Your task to perform on an android device: change keyboard looks Image 0: 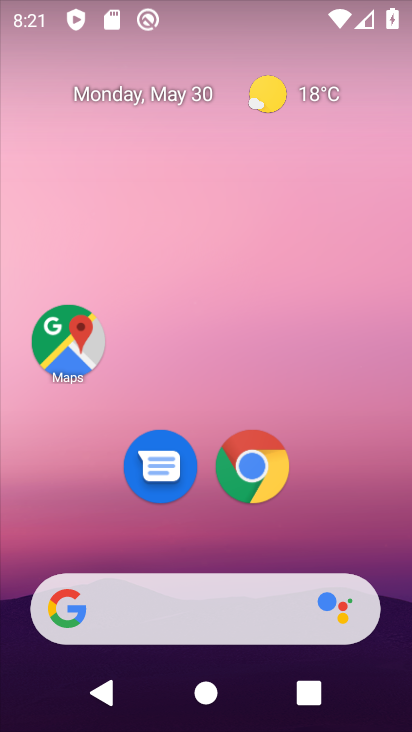
Step 0: drag from (331, 455) to (332, 329)
Your task to perform on an android device: change keyboard looks Image 1: 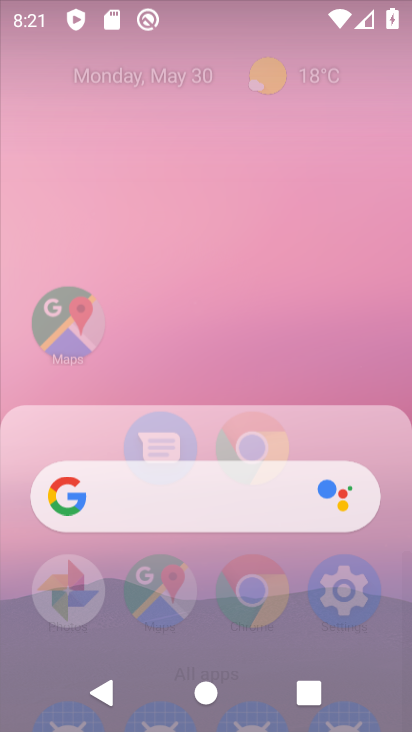
Step 1: click (338, 159)
Your task to perform on an android device: change keyboard looks Image 2: 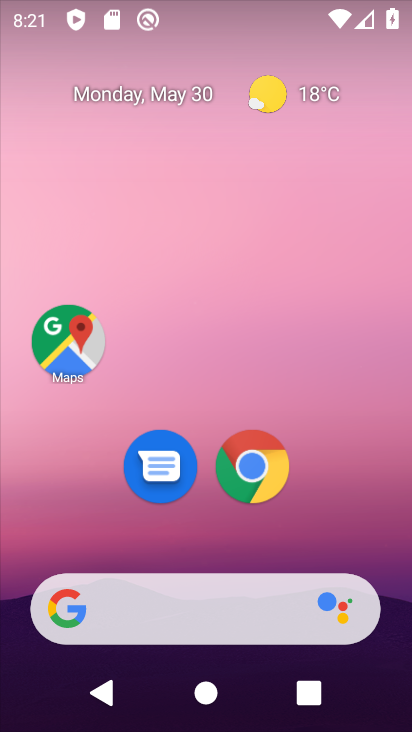
Step 2: drag from (344, 491) to (326, 59)
Your task to perform on an android device: change keyboard looks Image 3: 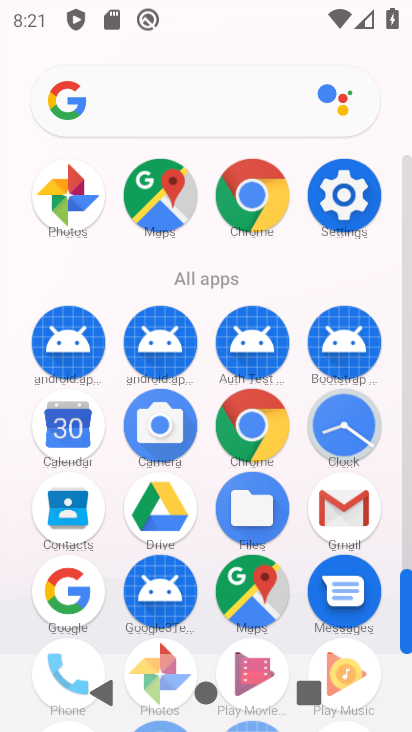
Step 3: drag from (192, 262) to (196, 56)
Your task to perform on an android device: change keyboard looks Image 4: 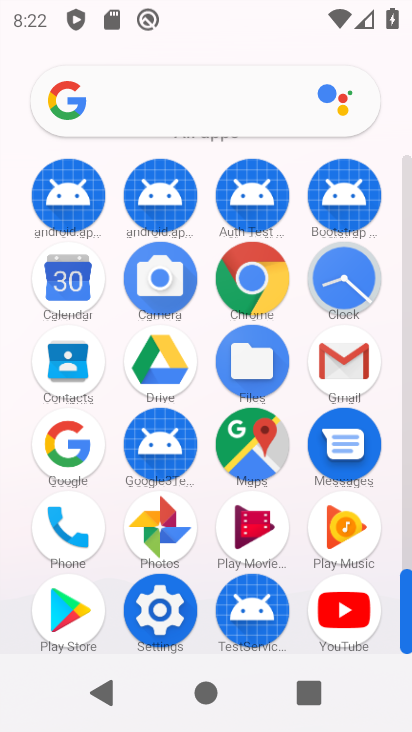
Step 4: click (153, 612)
Your task to perform on an android device: change keyboard looks Image 5: 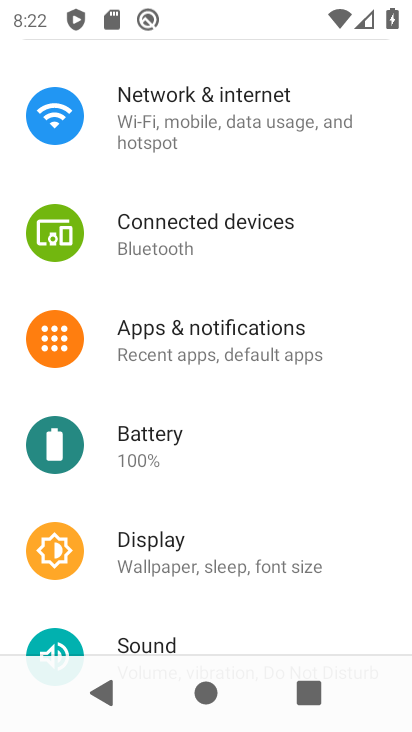
Step 5: drag from (235, 571) to (211, 122)
Your task to perform on an android device: change keyboard looks Image 6: 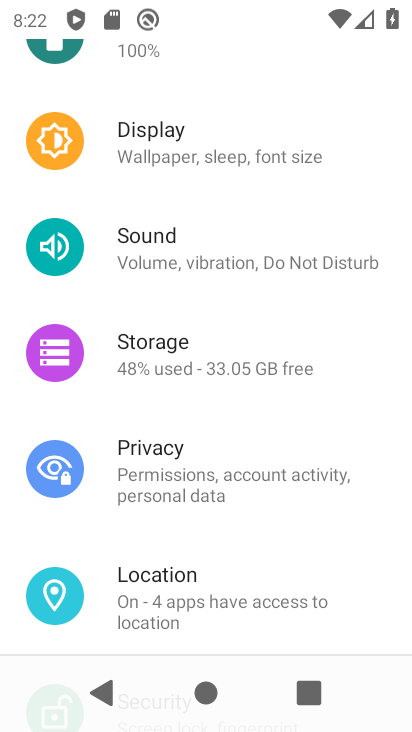
Step 6: drag from (220, 597) to (237, 183)
Your task to perform on an android device: change keyboard looks Image 7: 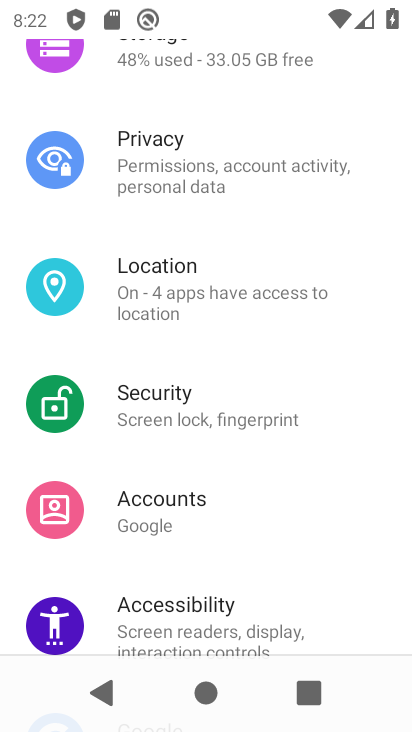
Step 7: drag from (291, 540) to (297, 98)
Your task to perform on an android device: change keyboard looks Image 8: 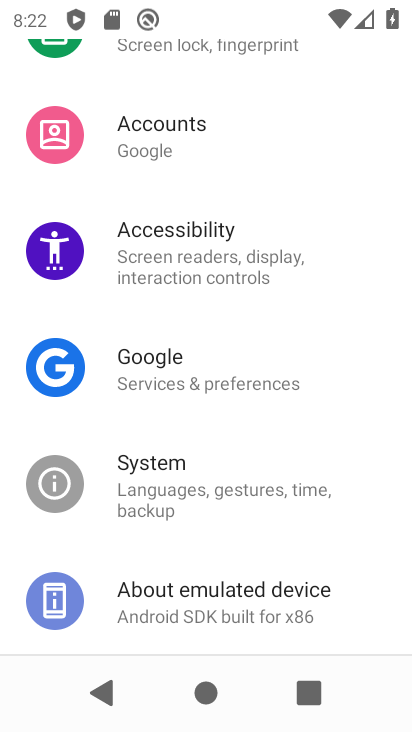
Step 8: drag from (225, 524) to (223, 384)
Your task to perform on an android device: change keyboard looks Image 9: 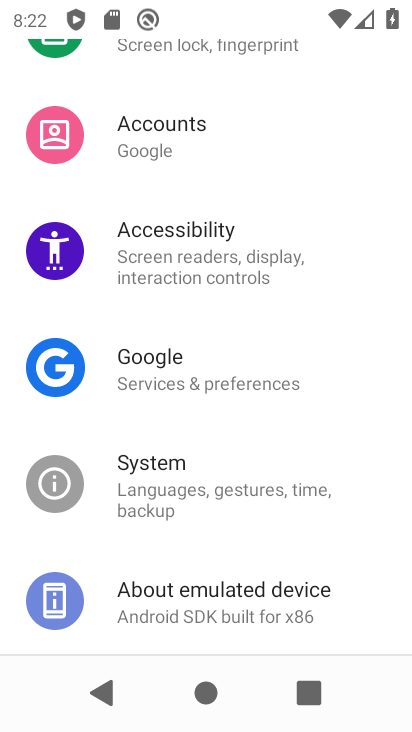
Step 9: click (134, 473)
Your task to perform on an android device: change keyboard looks Image 10: 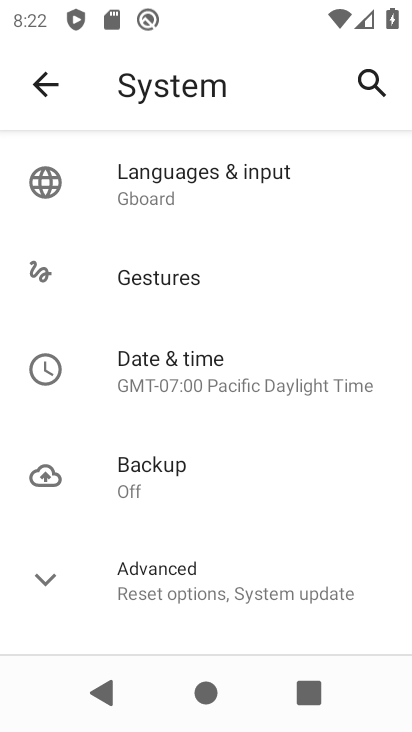
Step 10: click (168, 170)
Your task to perform on an android device: change keyboard looks Image 11: 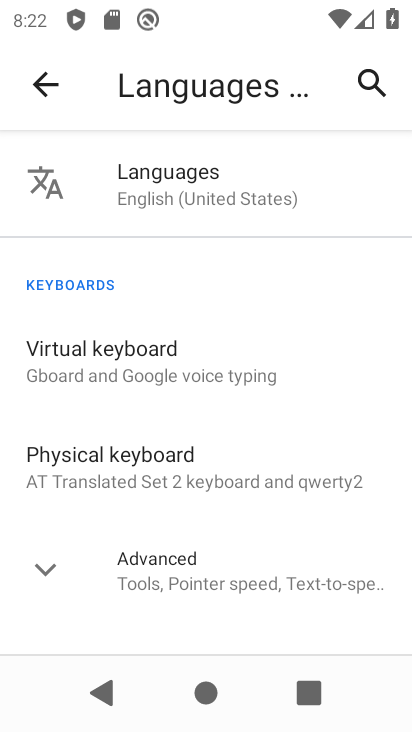
Step 11: click (127, 343)
Your task to perform on an android device: change keyboard looks Image 12: 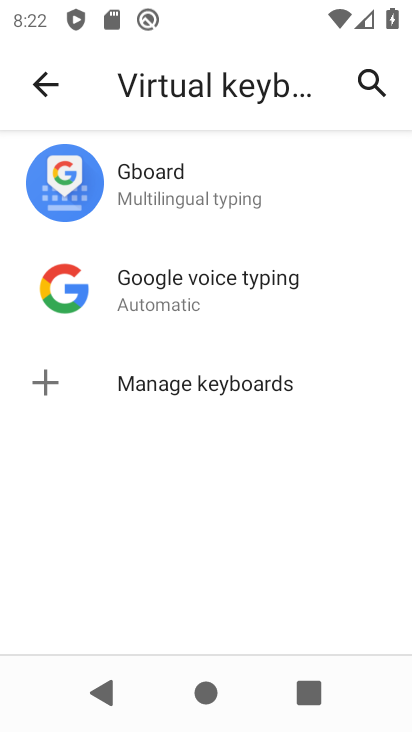
Step 12: click (131, 180)
Your task to perform on an android device: change keyboard looks Image 13: 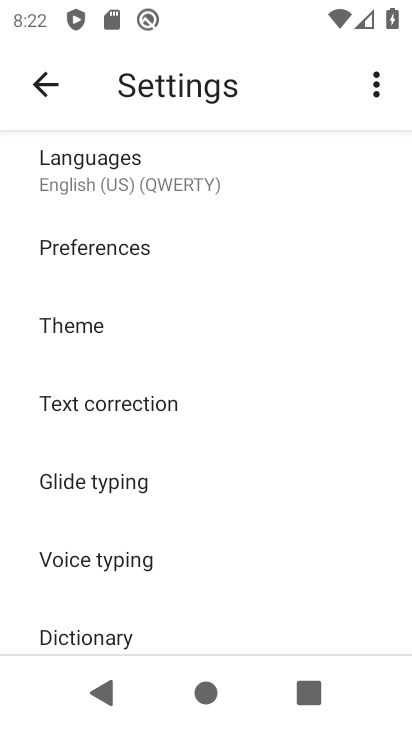
Step 13: click (70, 327)
Your task to perform on an android device: change keyboard looks Image 14: 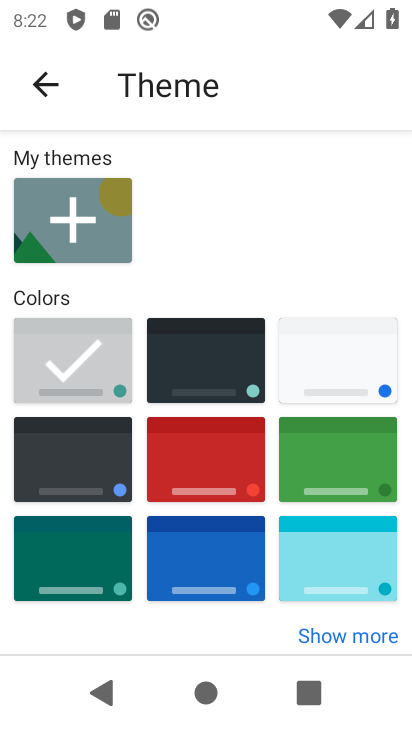
Step 14: click (225, 349)
Your task to perform on an android device: change keyboard looks Image 15: 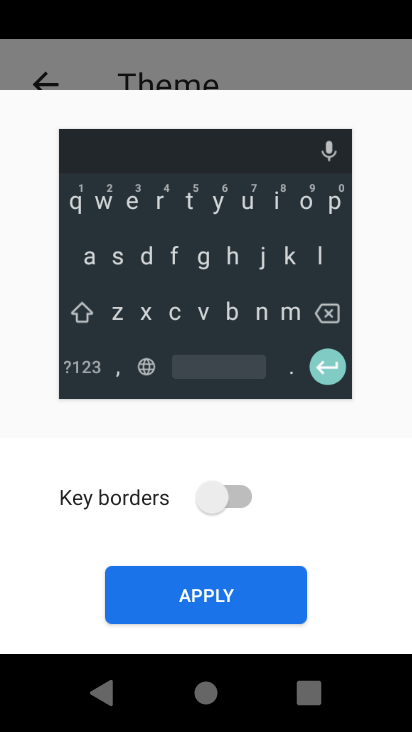
Step 15: click (214, 485)
Your task to perform on an android device: change keyboard looks Image 16: 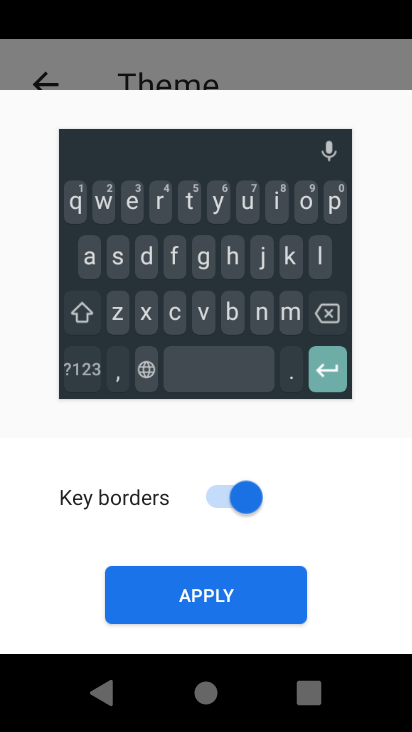
Step 16: click (220, 599)
Your task to perform on an android device: change keyboard looks Image 17: 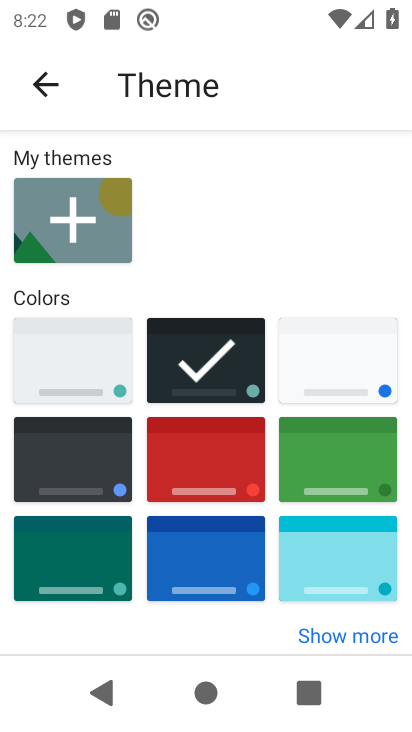
Step 17: task complete